Your task to perform on an android device: Is it going to rain this weekend? Image 0: 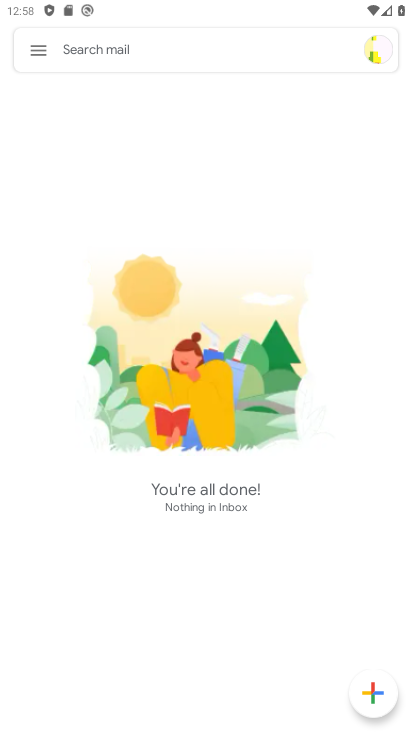
Step 0: press home button
Your task to perform on an android device: Is it going to rain this weekend? Image 1: 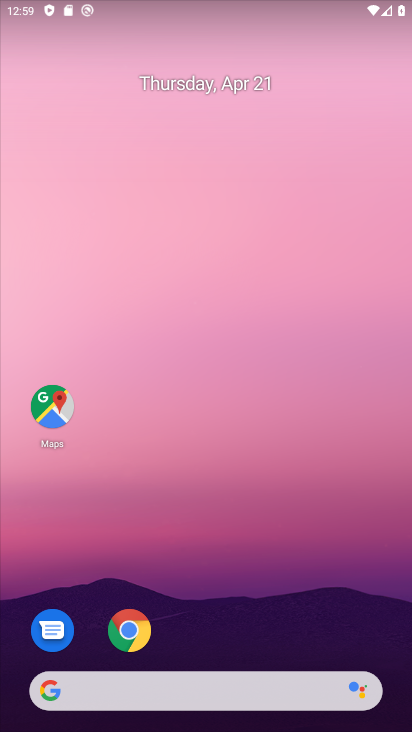
Step 1: drag from (18, 140) to (411, 163)
Your task to perform on an android device: Is it going to rain this weekend? Image 2: 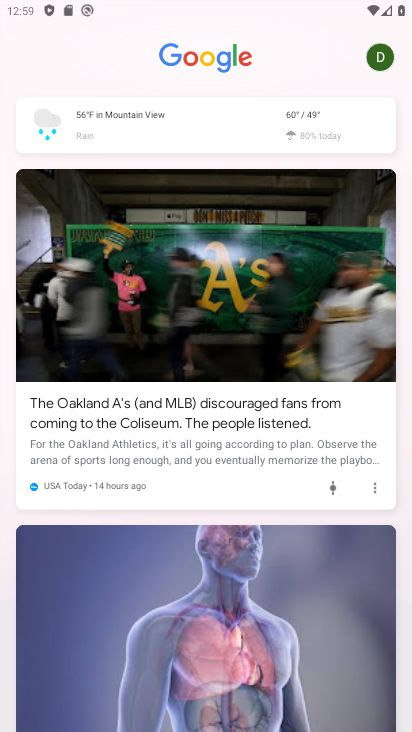
Step 2: click (279, 112)
Your task to perform on an android device: Is it going to rain this weekend? Image 3: 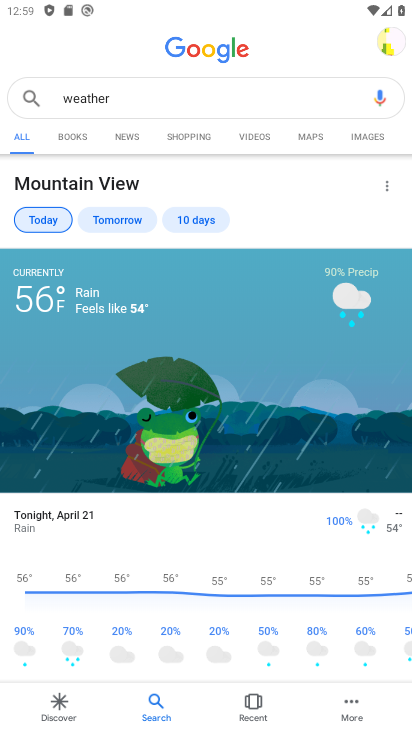
Step 3: click (172, 217)
Your task to perform on an android device: Is it going to rain this weekend? Image 4: 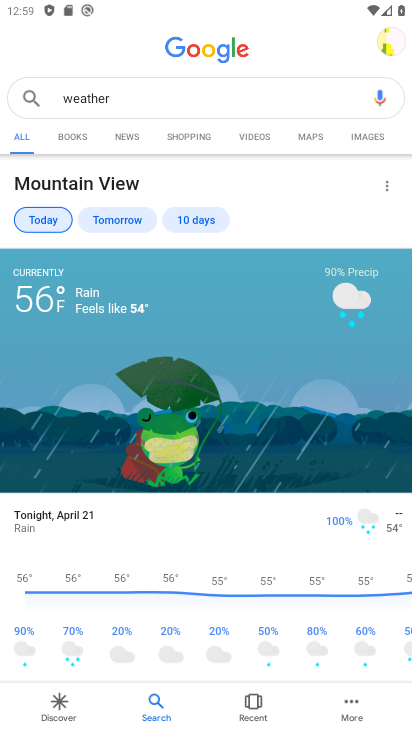
Step 4: click (213, 220)
Your task to perform on an android device: Is it going to rain this weekend? Image 5: 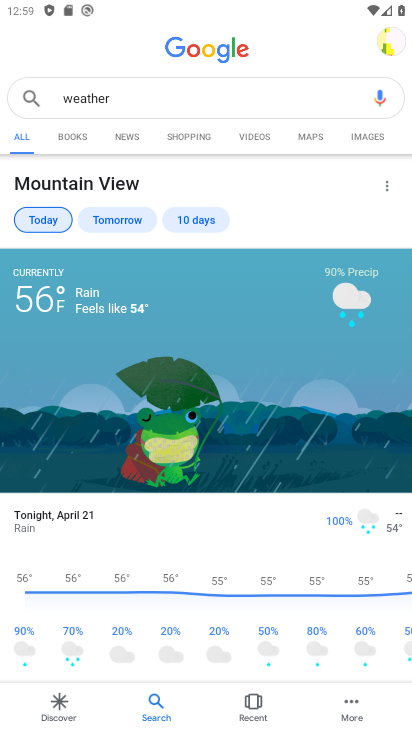
Step 5: drag from (323, 477) to (2, 420)
Your task to perform on an android device: Is it going to rain this weekend? Image 6: 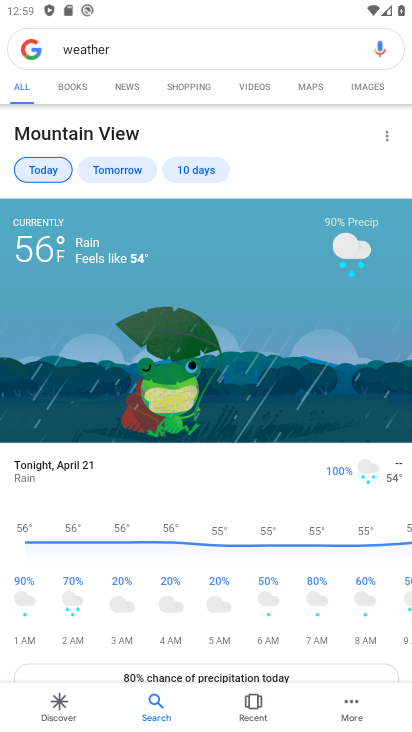
Step 6: drag from (369, 227) to (18, 294)
Your task to perform on an android device: Is it going to rain this weekend? Image 7: 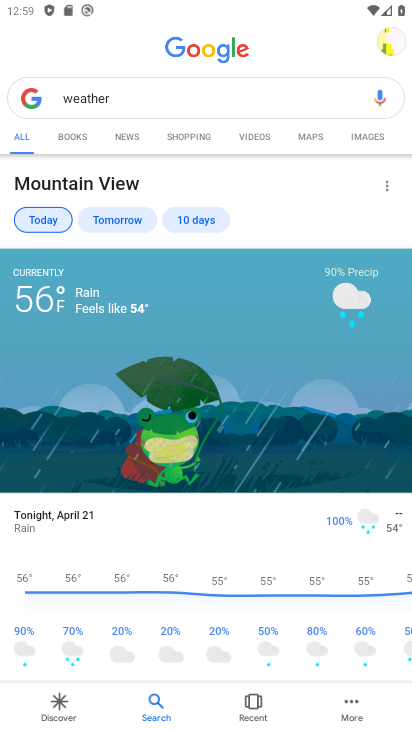
Step 7: drag from (367, 348) to (0, 465)
Your task to perform on an android device: Is it going to rain this weekend? Image 8: 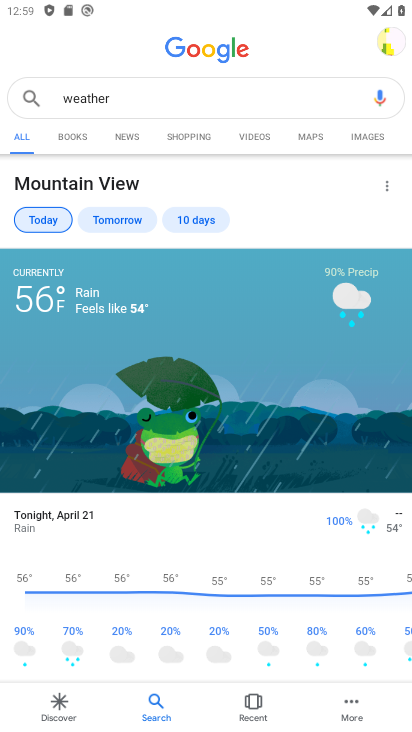
Step 8: click (67, 514)
Your task to perform on an android device: Is it going to rain this weekend? Image 9: 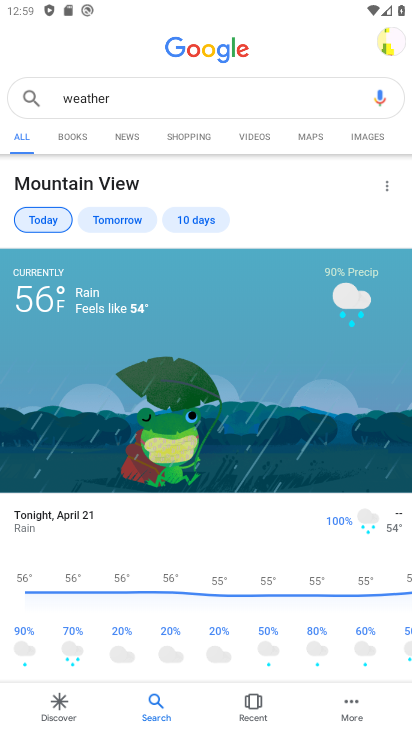
Step 9: drag from (186, 516) to (174, 243)
Your task to perform on an android device: Is it going to rain this weekend? Image 10: 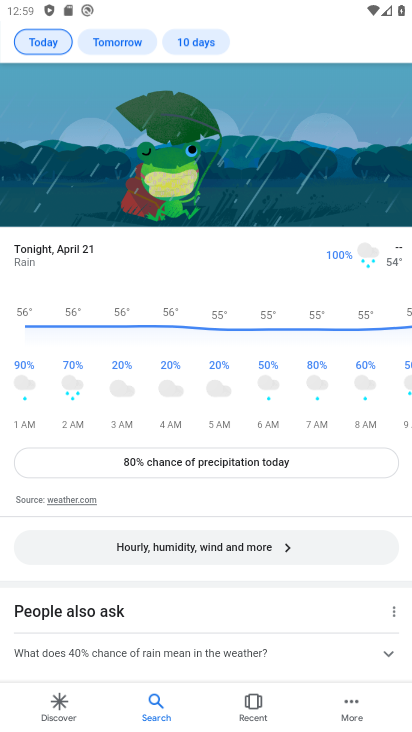
Step 10: click (191, 543)
Your task to perform on an android device: Is it going to rain this weekend? Image 11: 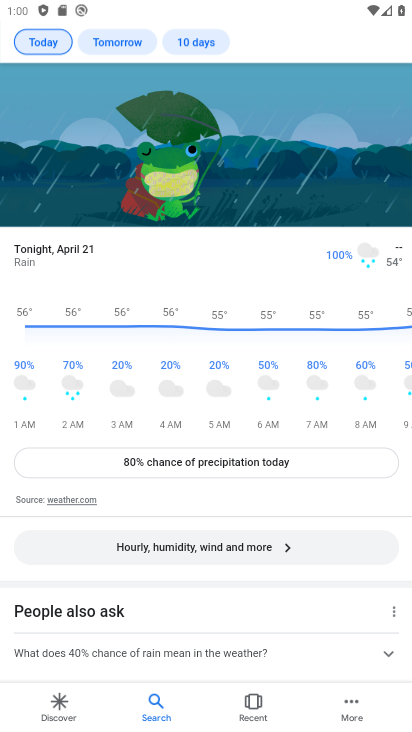
Step 11: task complete